Your task to perform on an android device: open a new tab in the chrome app Image 0: 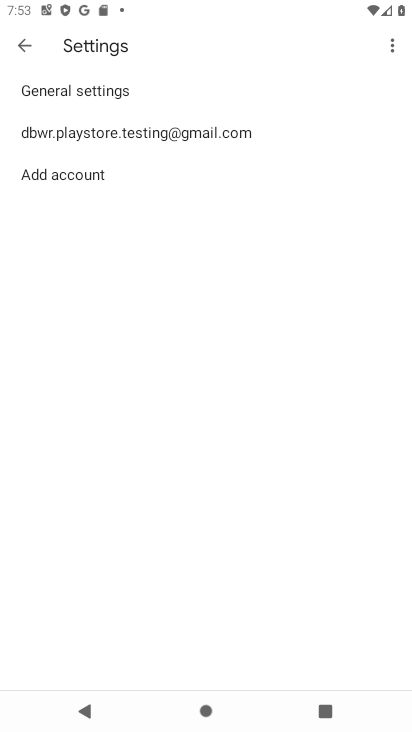
Step 0: press home button
Your task to perform on an android device: open a new tab in the chrome app Image 1: 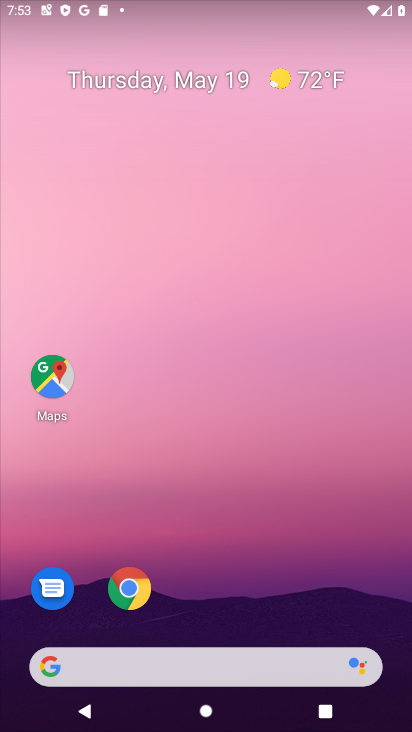
Step 1: click (143, 592)
Your task to perform on an android device: open a new tab in the chrome app Image 2: 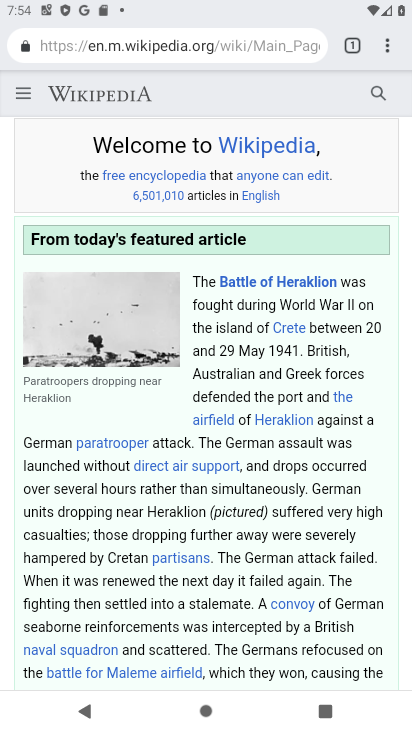
Step 2: click (391, 39)
Your task to perform on an android device: open a new tab in the chrome app Image 3: 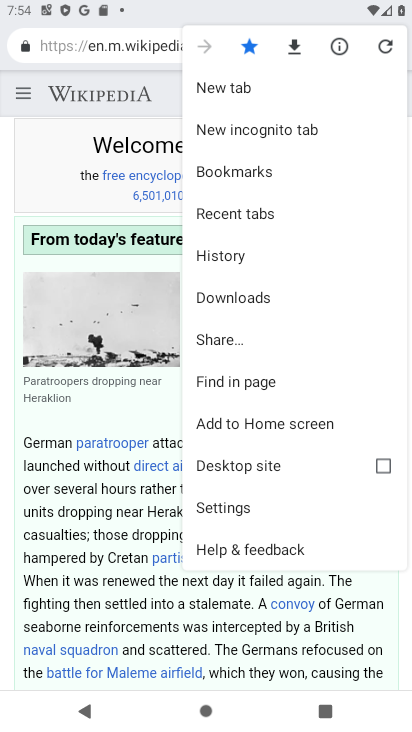
Step 3: click (222, 86)
Your task to perform on an android device: open a new tab in the chrome app Image 4: 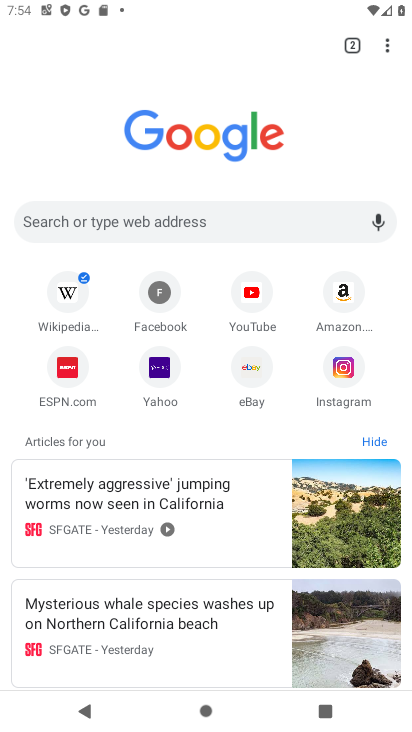
Step 4: task complete